Your task to perform on an android device: allow notifications from all sites in the chrome app Image 0: 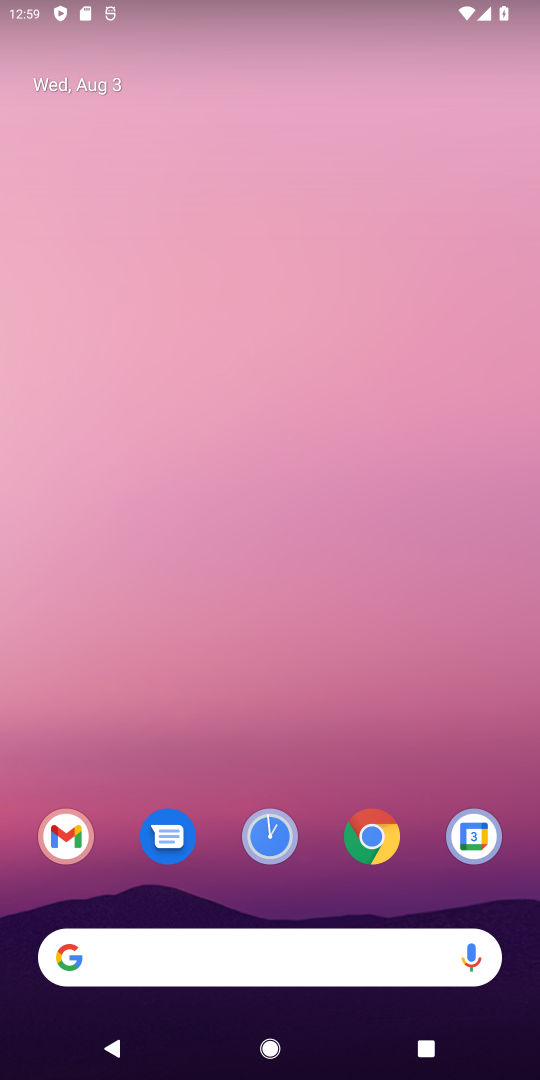
Step 0: drag from (290, 891) to (333, 381)
Your task to perform on an android device: allow notifications from all sites in the chrome app Image 1: 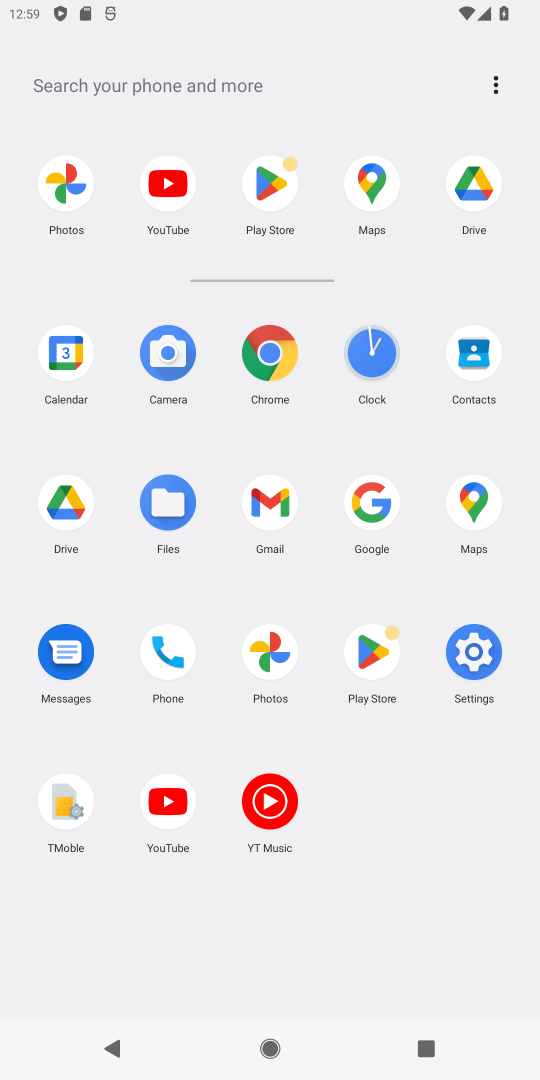
Step 1: click (264, 355)
Your task to perform on an android device: allow notifications from all sites in the chrome app Image 2: 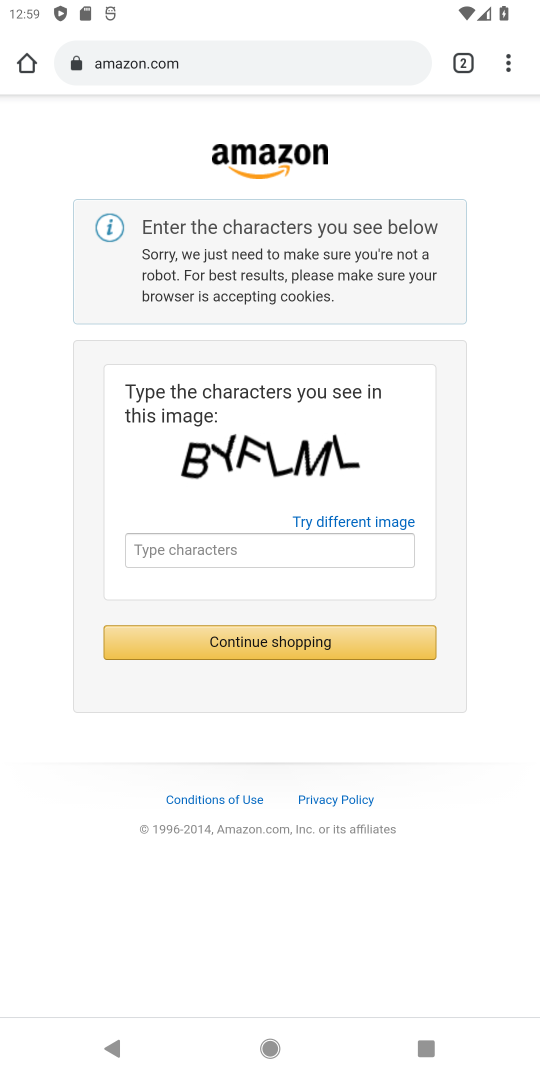
Step 2: drag from (510, 54) to (353, 767)
Your task to perform on an android device: allow notifications from all sites in the chrome app Image 3: 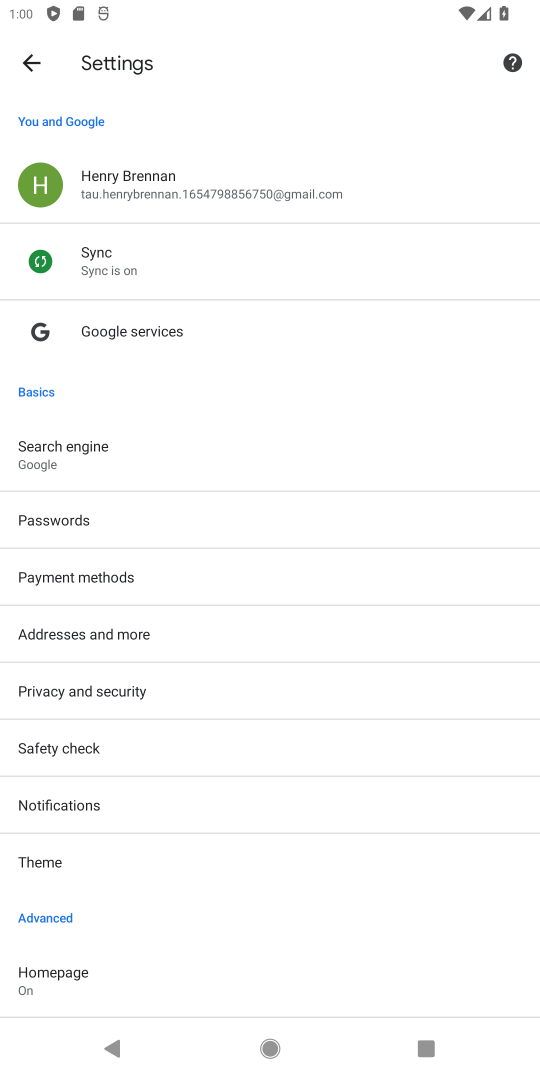
Step 3: drag from (154, 936) to (289, 441)
Your task to perform on an android device: allow notifications from all sites in the chrome app Image 4: 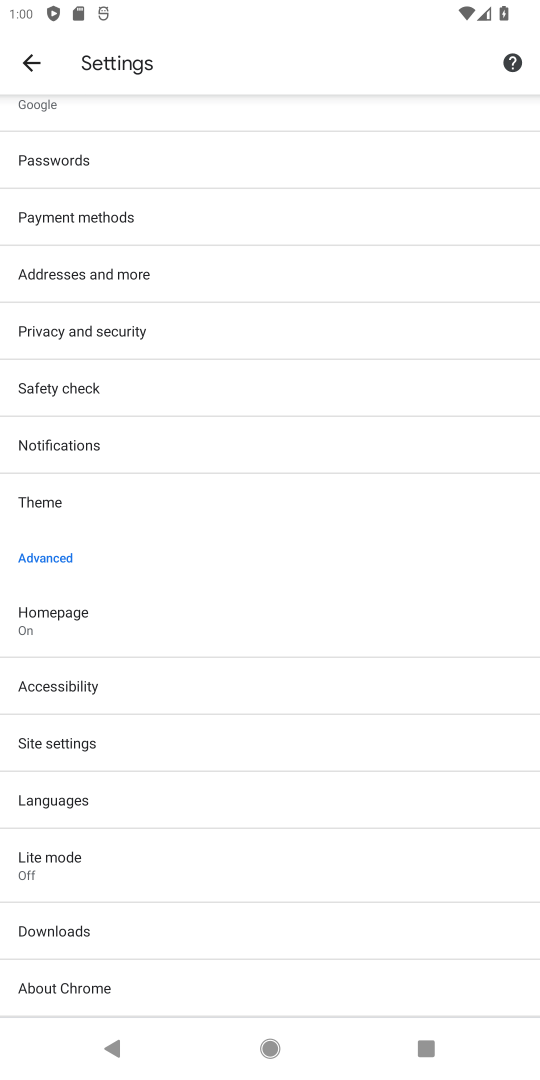
Step 4: click (75, 749)
Your task to perform on an android device: allow notifications from all sites in the chrome app Image 5: 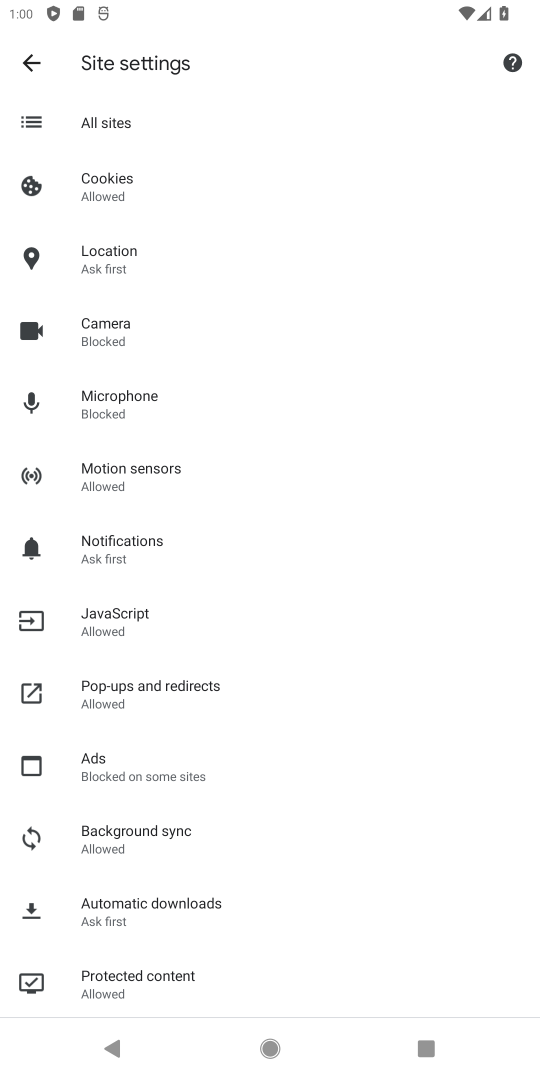
Step 5: drag from (228, 819) to (278, 386)
Your task to perform on an android device: allow notifications from all sites in the chrome app Image 6: 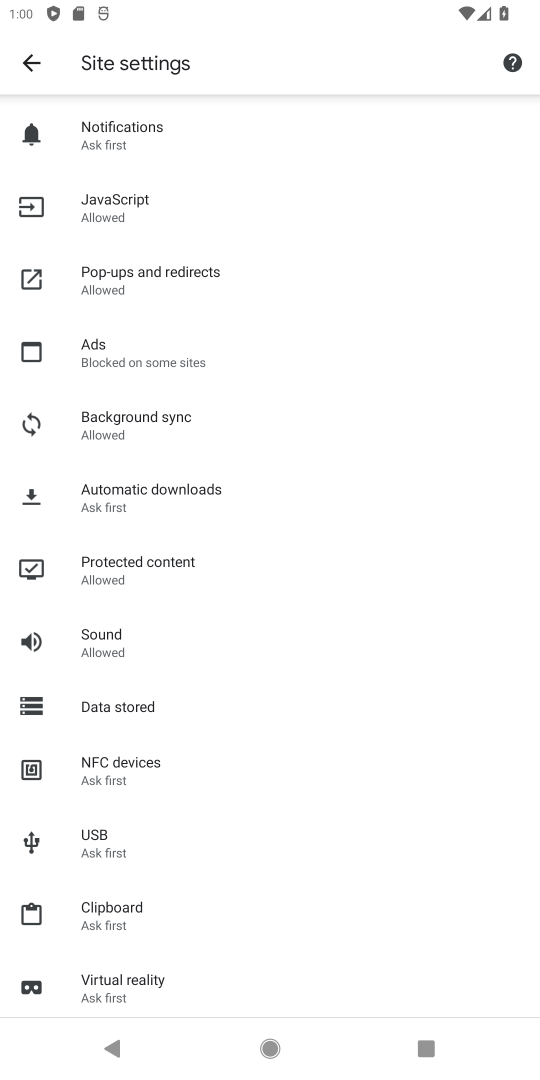
Step 6: drag from (309, 264) to (356, 1076)
Your task to perform on an android device: allow notifications from all sites in the chrome app Image 7: 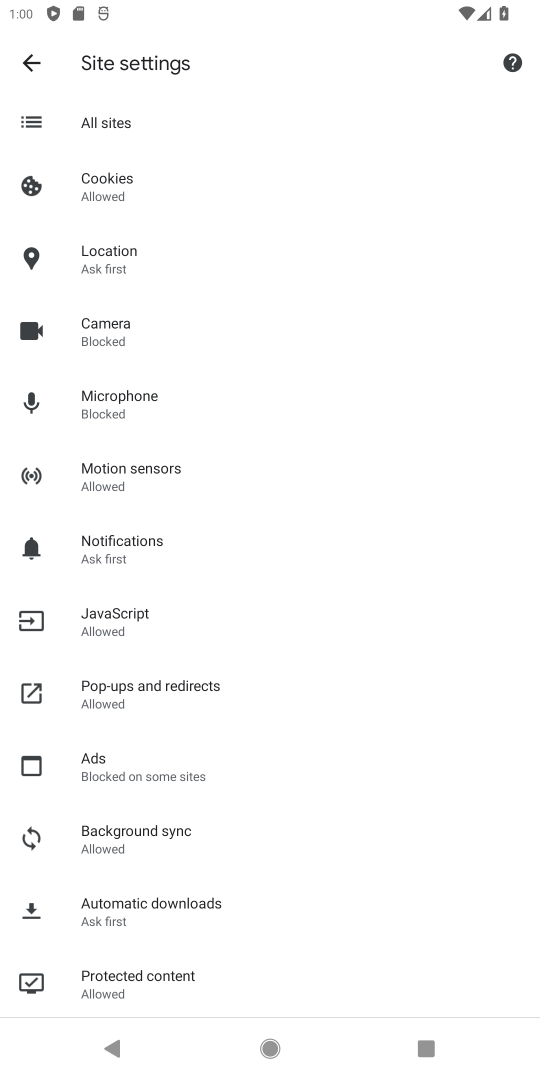
Step 7: drag from (183, 321) to (295, 757)
Your task to perform on an android device: allow notifications from all sites in the chrome app Image 8: 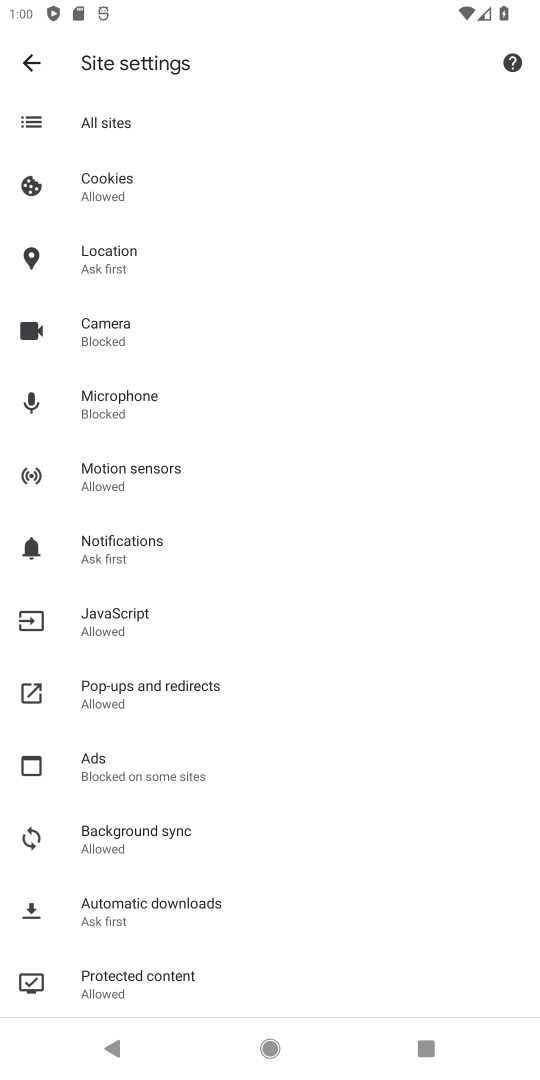
Step 8: click (201, 557)
Your task to perform on an android device: allow notifications from all sites in the chrome app Image 9: 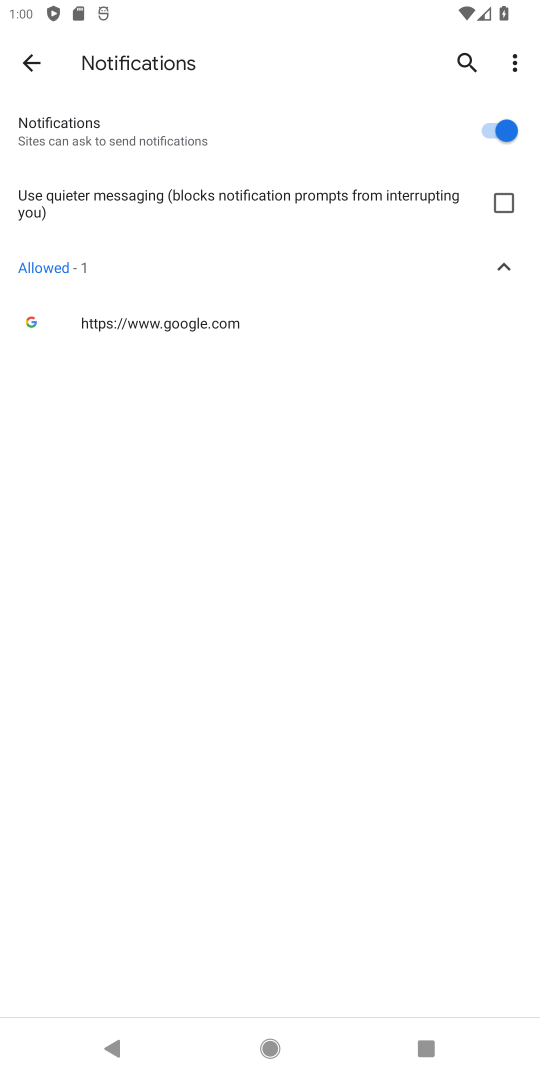
Step 9: task complete